Your task to perform on an android device: open the mobile data screen to see how much data has been used Image 0: 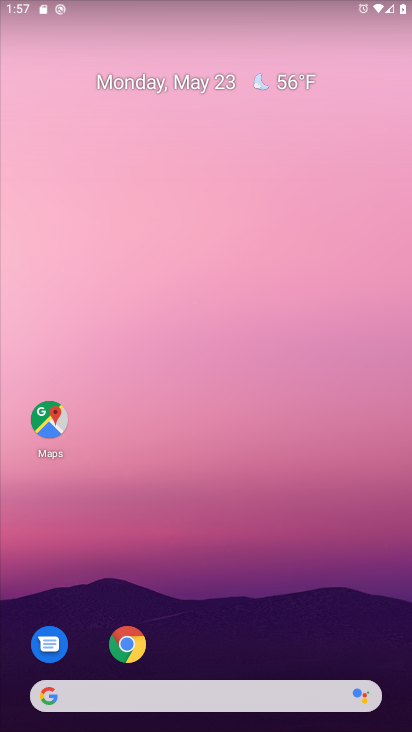
Step 0: drag from (219, 653) to (157, 220)
Your task to perform on an android device: open the mobile data screen to see how much data has been used Image 1: 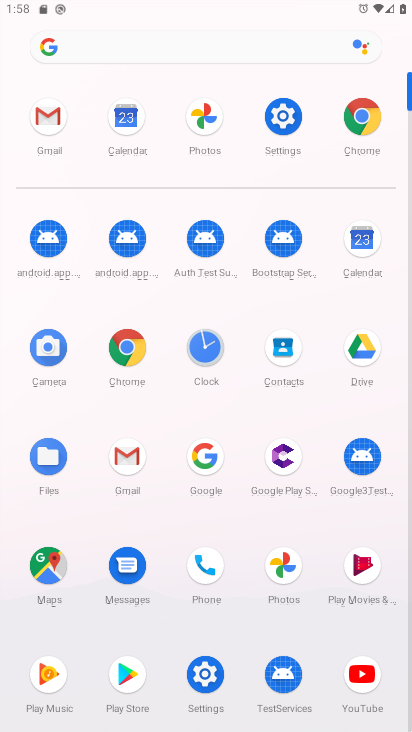
Step 1: click (276, 108)
Your task to perform on an android device: open the mobile data screen to see how much data has been used Image 2: 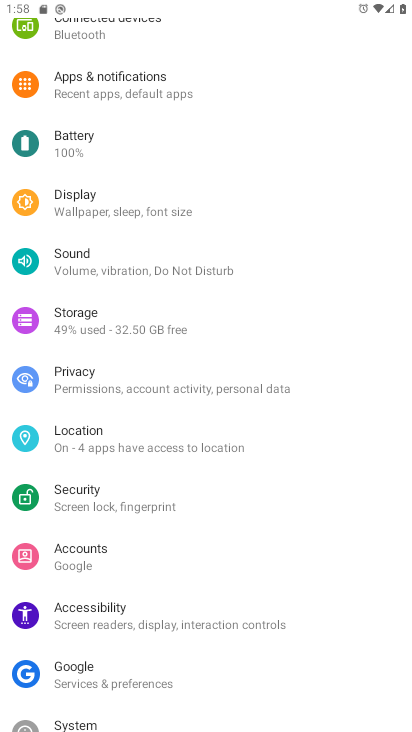
Step 2: drag from (163, 113) to (122, 486)
Your task to perform on an android device: open the mobile data screen to see how much data has been used Image 3: 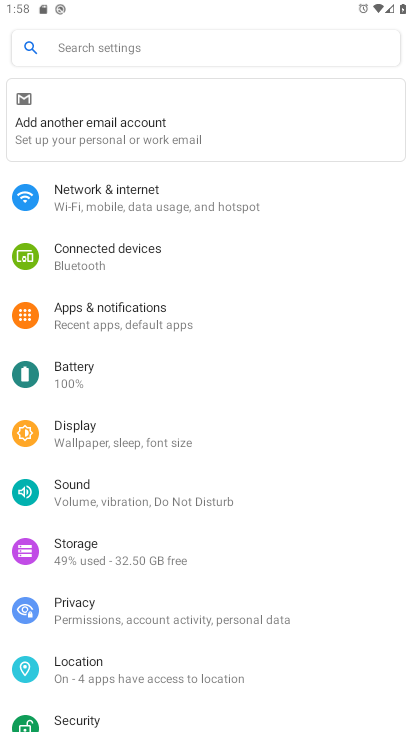
Step 3: click (122, 214)
Your task to perform on an android device: open the mobile data screen to see how much data has been used Image 4: 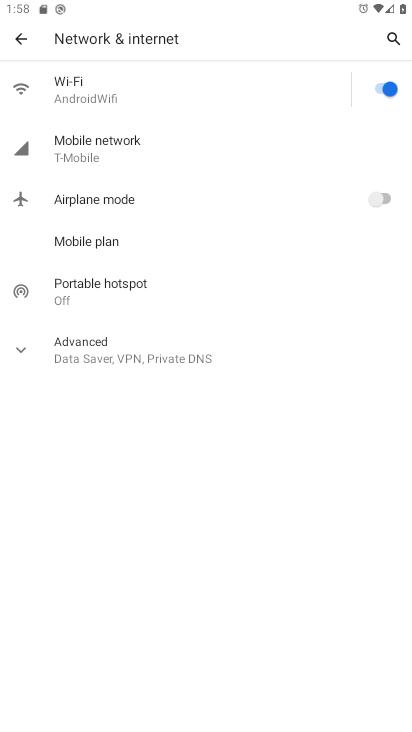
Step 4: click (132, 157)
Your task to perform on an android device: open the mobile data screen to see how much data has been used Image 5: 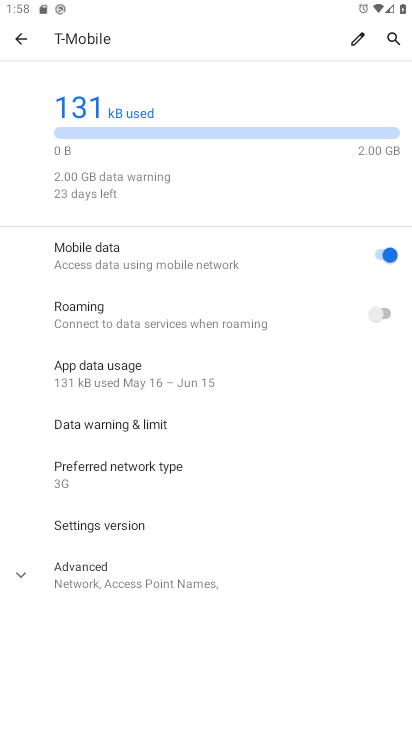
Step 5: task complete